Your task to perform on an android device: Go to wifi settings Image 0: 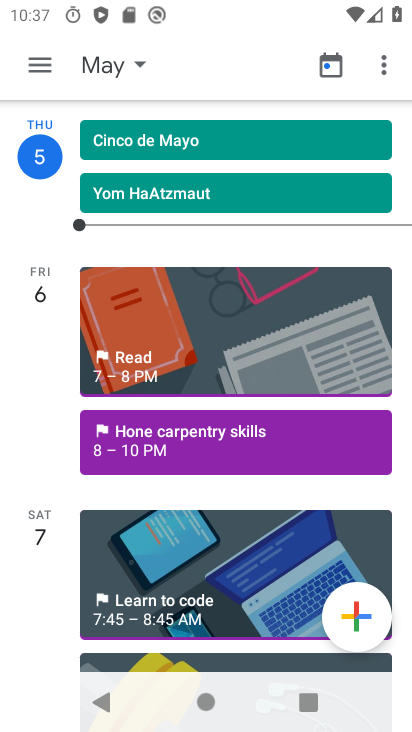
Step 0: press home button
Your task to perform on an android device: Go to wifi settings Image 1: 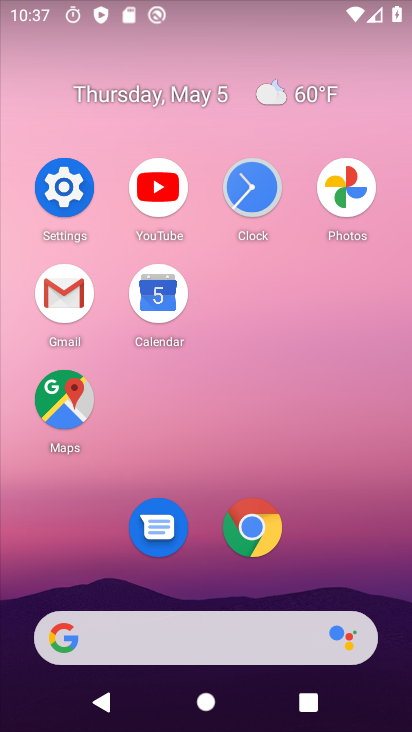
Step 1: click (75, 216)
Your task to perform on an android device: Go to wifi settings Image 2: 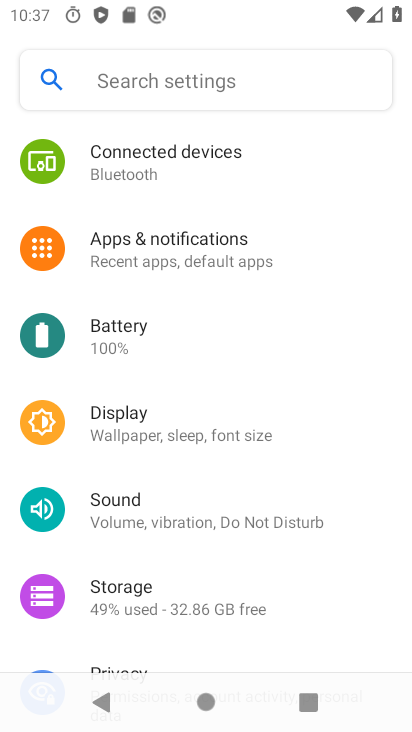
Step 2: drag from (290, 149) to (265, 521)
Your task to perform on an android device: Go to wifi settings Image 3: 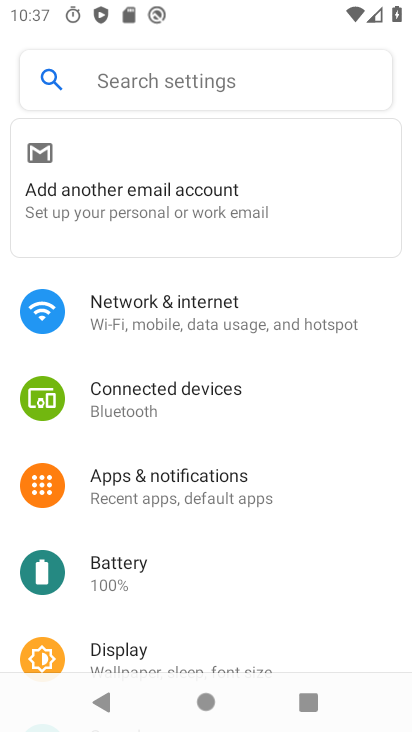
Step 3: click (245, 307)
Your task to perform on an android device: Go to wifi settings Image 4: 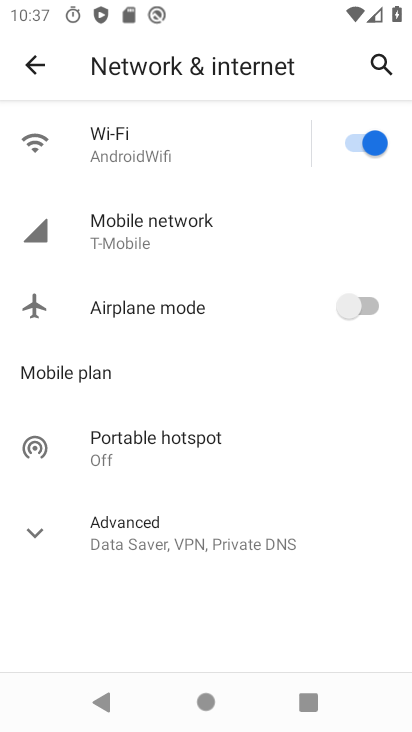
Step 4: click (135, 161)
Your task to perform on an android device: Go to wifi settings Image 5: 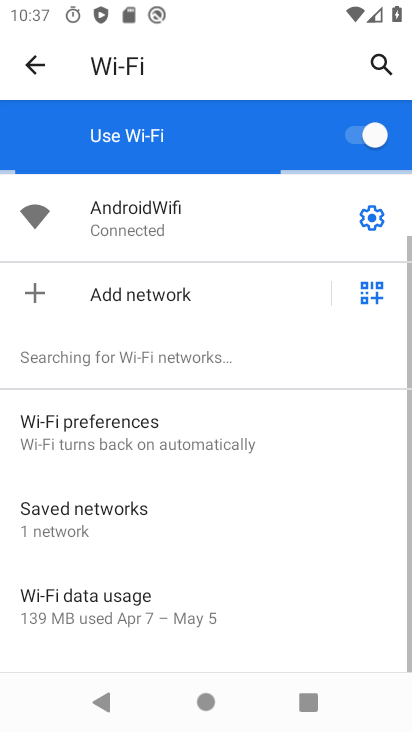
Step 5: click (365, 219)
Your task to perform on an android device: Go to wifi settings Image 6: 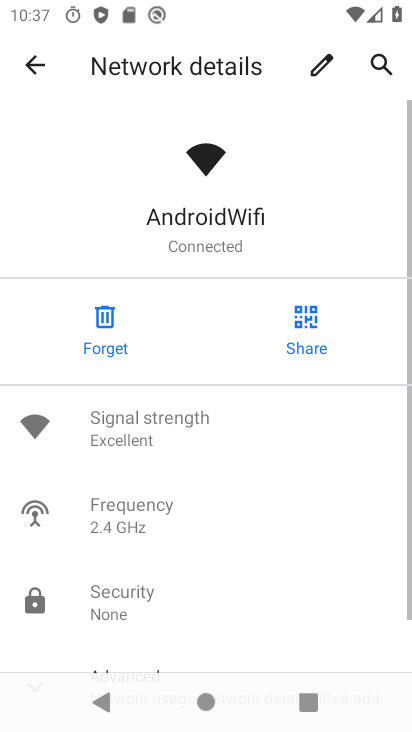
Step 6: task complete